Your task to perform on an android device: Open Google Chrome Image 0: 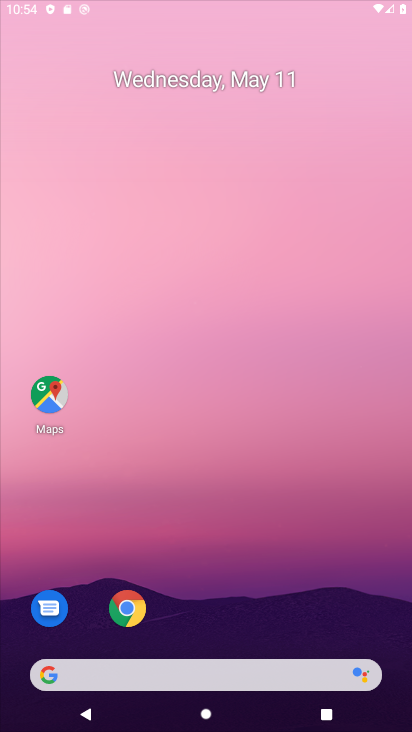
Step 0: click (129, 41)
Your task to perform on an android device: Open Google Chrome Image 1: 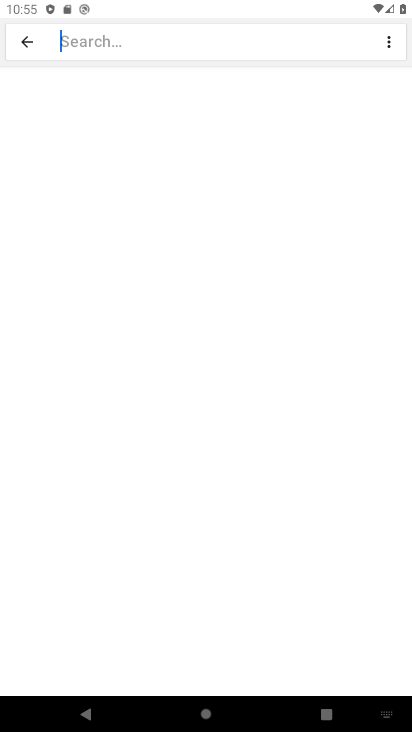
Step 1: press home button
Your task to perform on an android device: Open Google Chrome Image 2: 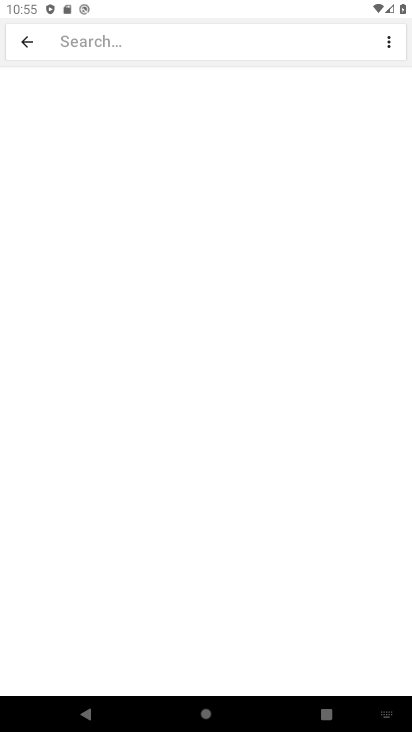
Step 2: press home button
Your task to perform on an android device: Open Google Chrome Image 3: 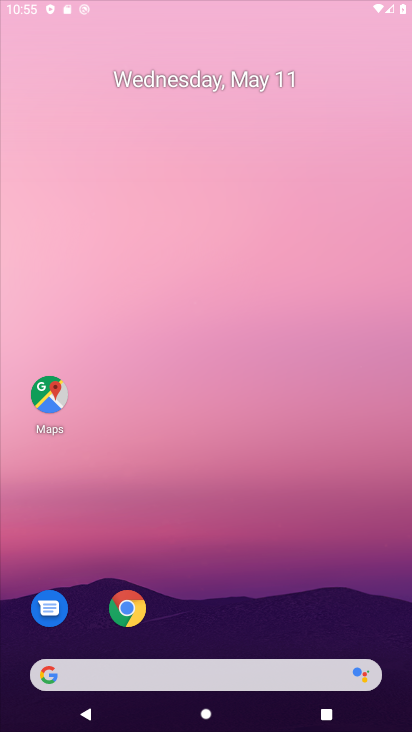
Step 3: press home button
Your task to perform on an android device: Open Google Chrome Image 4: 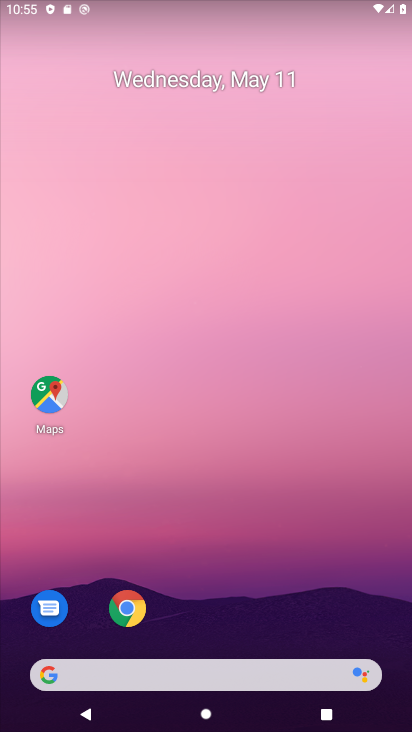
Step 4: press home button
Your task to perform on an android device: Open Google Chrome Image 5: 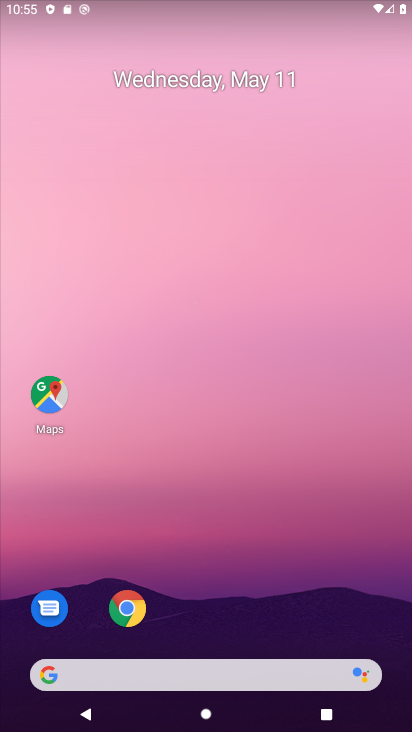
Step 5: drag from (246, 619) to (146, 198)
Your task to perform on an android device: Open Google Chrome Image 6: 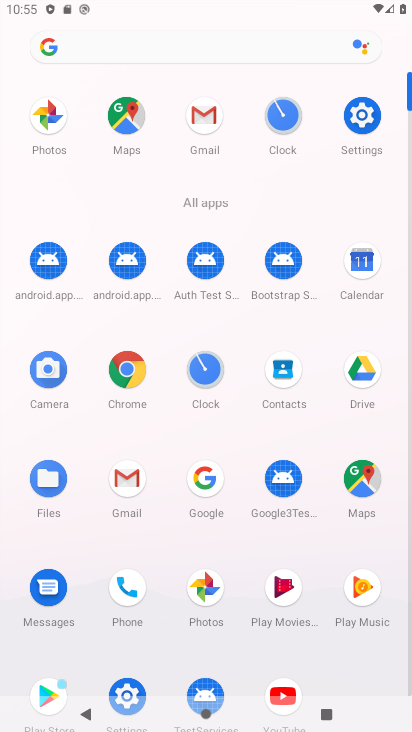
Step 6: click (114, 362)
Your task to perform on an android device: Open Google Chrome Image 7: 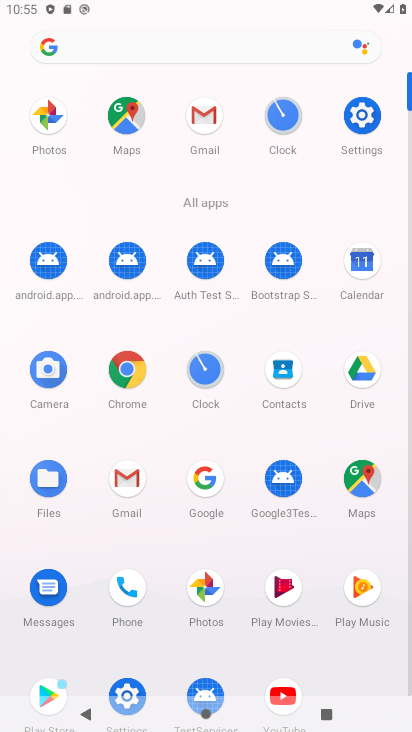
Step 7: click (114, 362)
Your task to perform on an android device: Open Google Chrome Image 8: 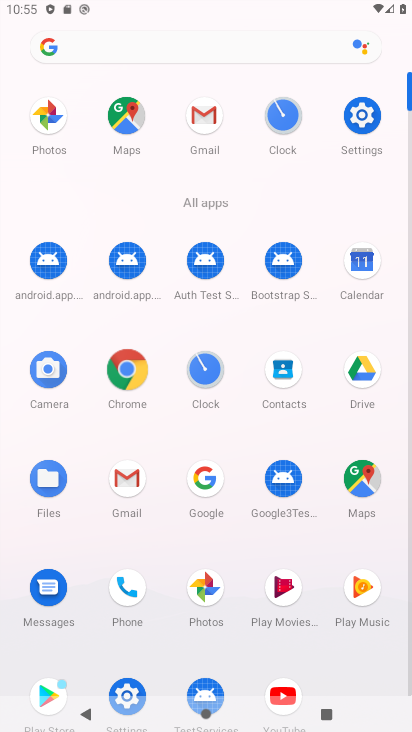
Step 8: click (115, 362)
Your task to perform on an android device: Open Google Chrome Image 9: 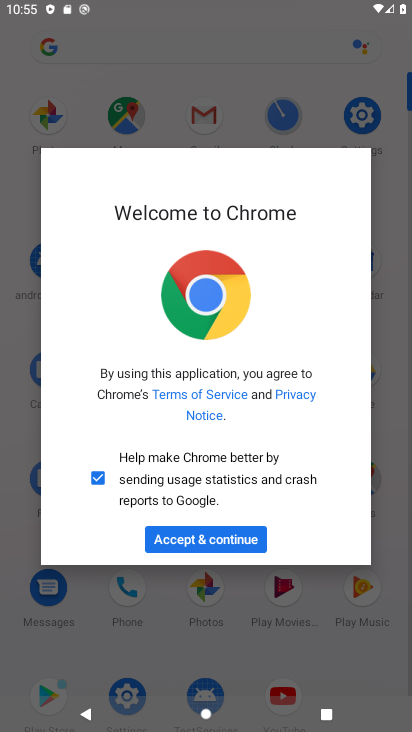
Step 9: click (202, 540)
Your task to perform on an android device: Open Google Chrome Image 10: 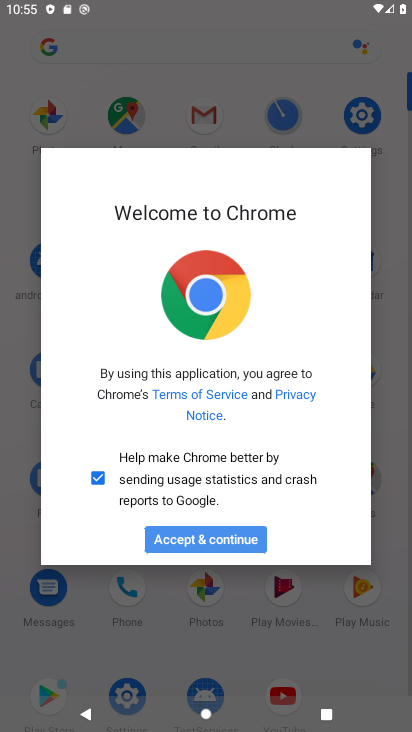
Step 10: click (203, 537)
Your task to perform on an android device: Open Google Chrome Image 11: 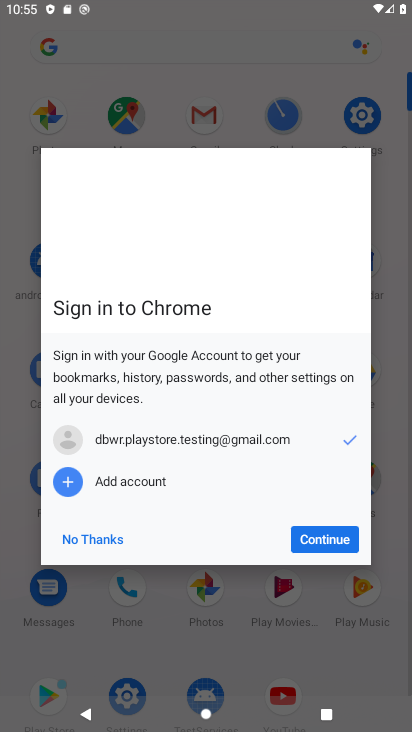
Step 11: click (335, 534)
Your task to perform on an android device: Open Google Chrome Image 12: 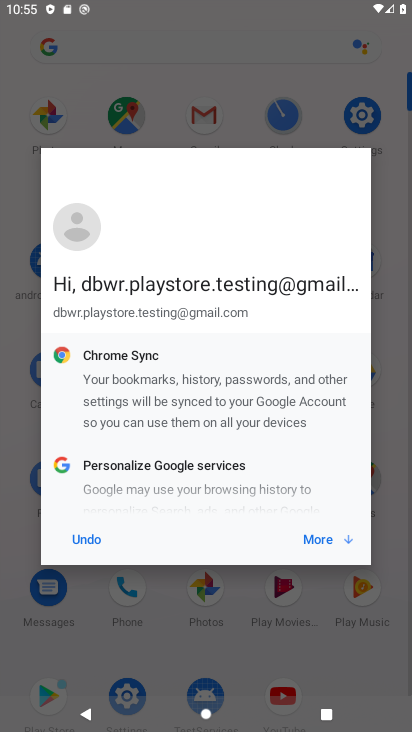
Step 12: click (317, 532)
Your task to perform on an android device: Open Google Chrome Image 13: 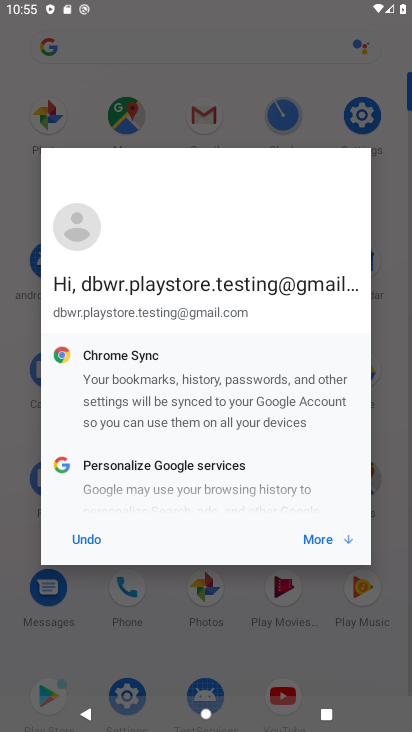
Step 13: click (317, 532)
Your task to perform on an android device: Open Google Chrome Image 14: 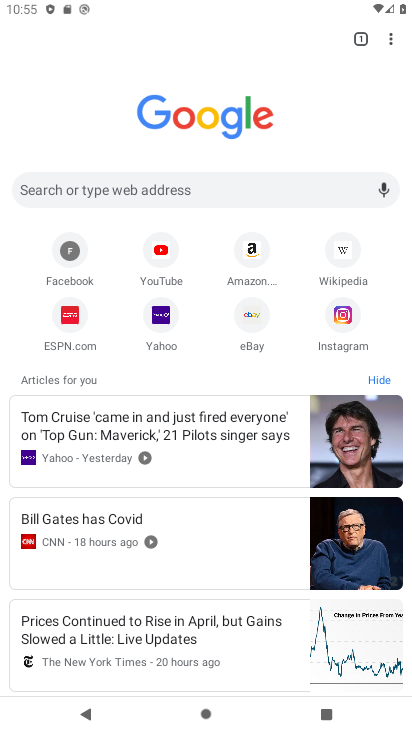
Step 14: task complete